Your task to perform on an android device: Open the phone app and click the voicemail tab. Image 0: 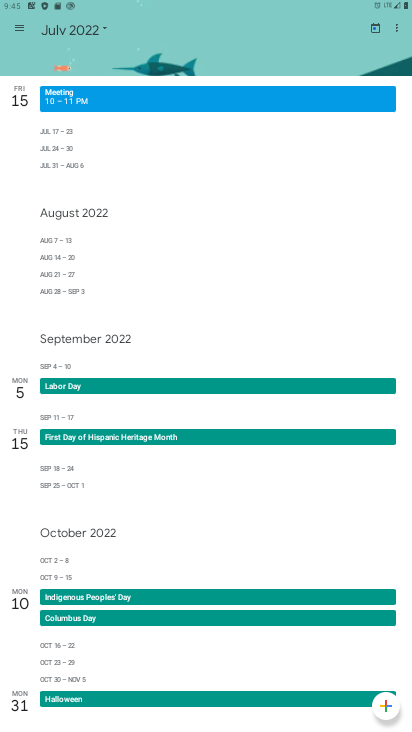
Step 0: press home button
Your task to perform on an android device: Open the phone app and click the voicemail tab. Image 1: 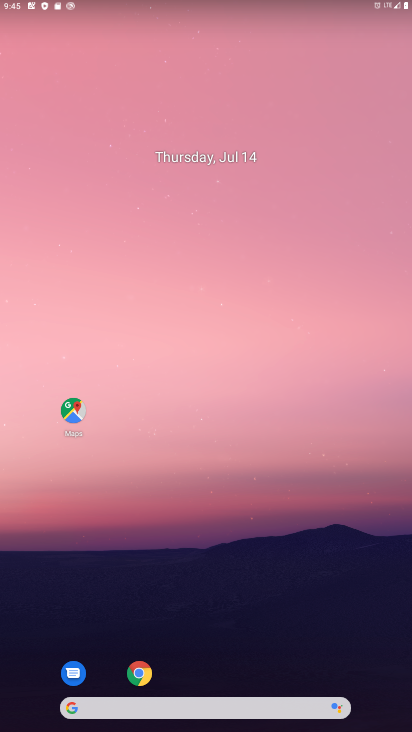
Step 1: drag from (168, 699) to (103, 277)
Your task to perform on an android device: Open the phone app and click the voicemail tab. Image 2: 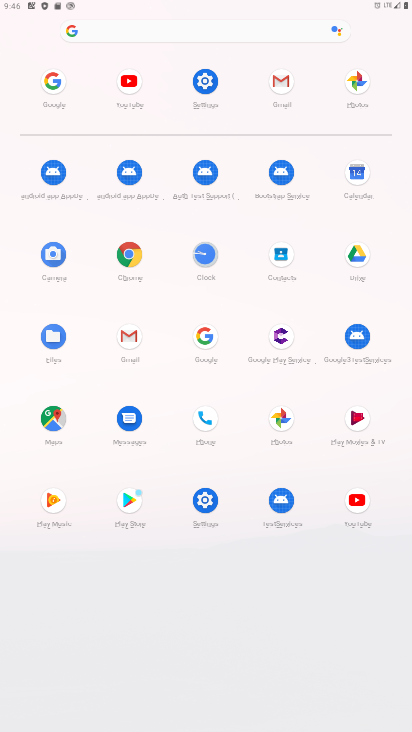
Step 2: click (204, 421)
Your task to perform on an android device: Open the phone app and click the voicemail tab. Image 3: 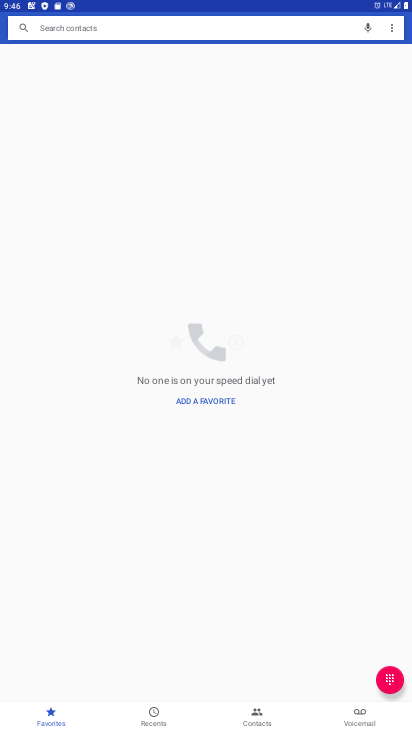
Step 3: click (359, 713)
Your task to perform on an android device: Open the phone app and click the voicemail tab. Image 4: 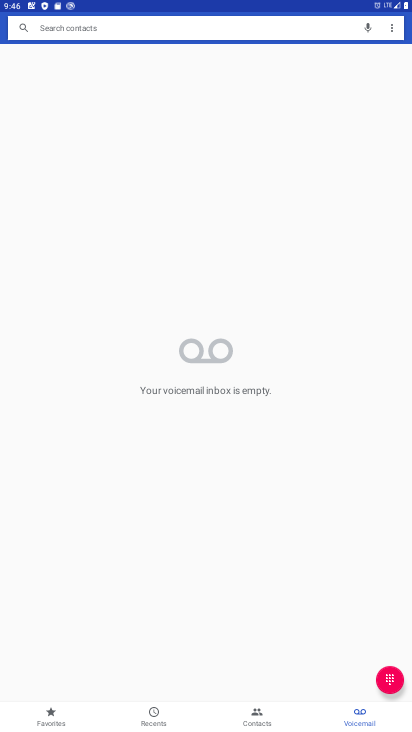
Step 4: task complete